Your task to perform on an android device: Go to Yahoo.com Image 0: 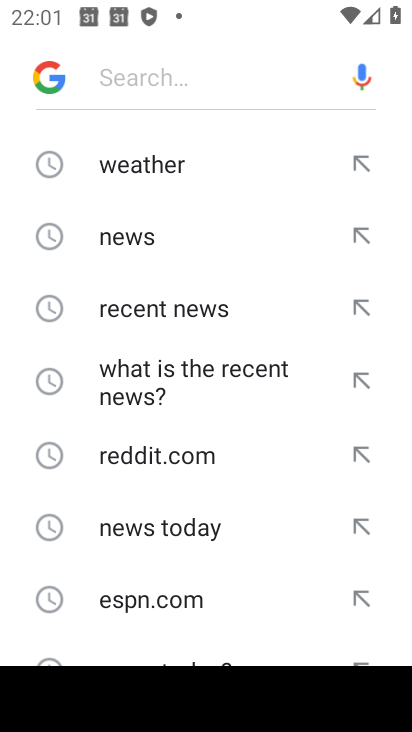
Step 0: type "yahoo.com"
Your task to perform on an android device: Go to Yahoo.com Image 1: 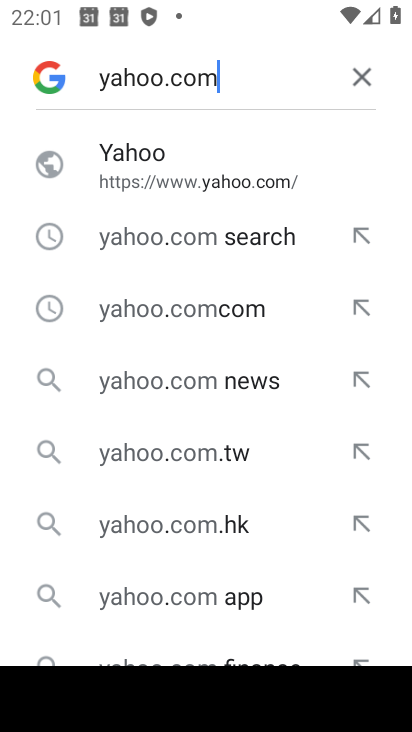
Step 1: click (160, 165)
Your task to perform on an android device: Go to Yahoo.com Image 2: 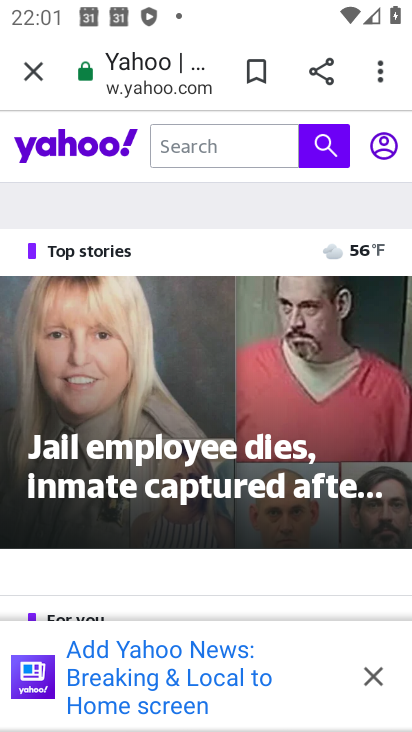
Step 2: task complete